Your task to perform on an android device: open app "File Manager" Image 0: 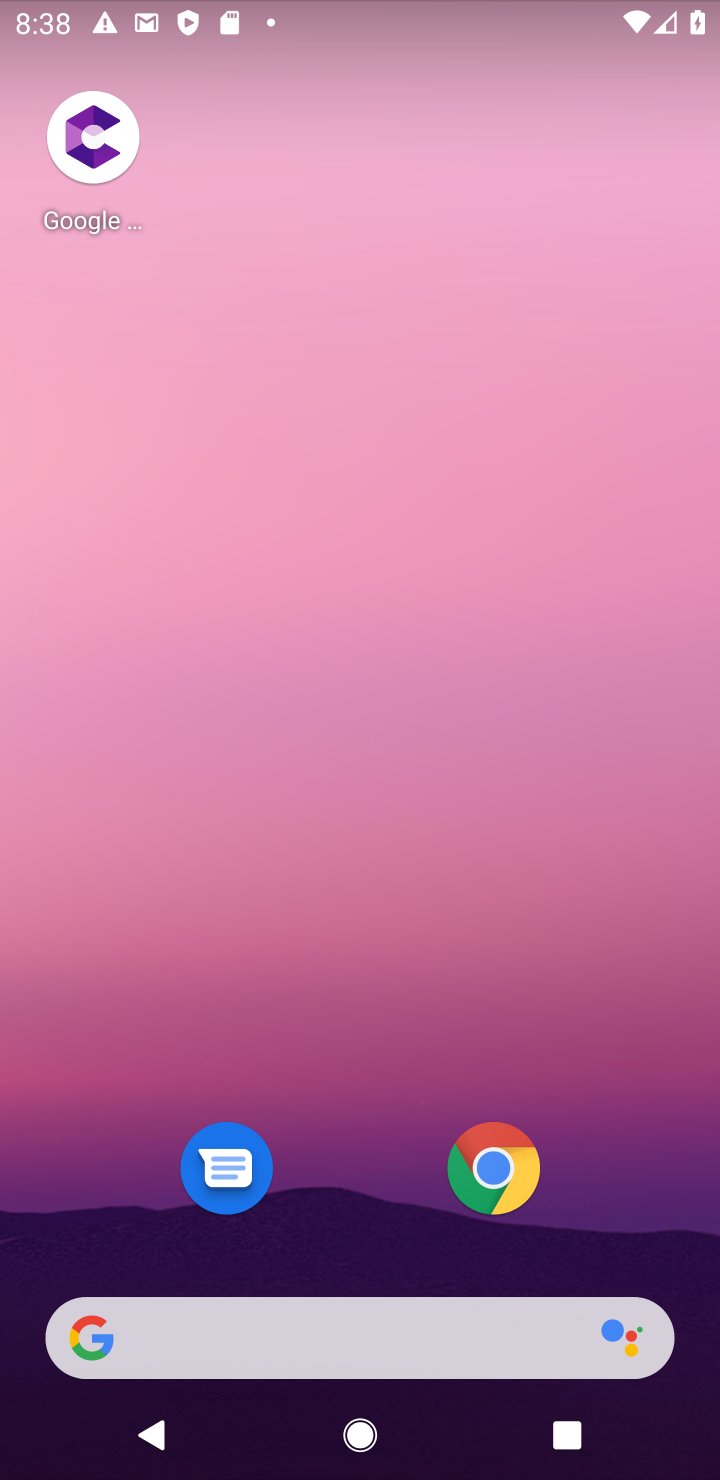
Step 0: drag from (384, 1302) to (355, 219)
Your task to perform on an android device: open app "File Manager" Image 1: 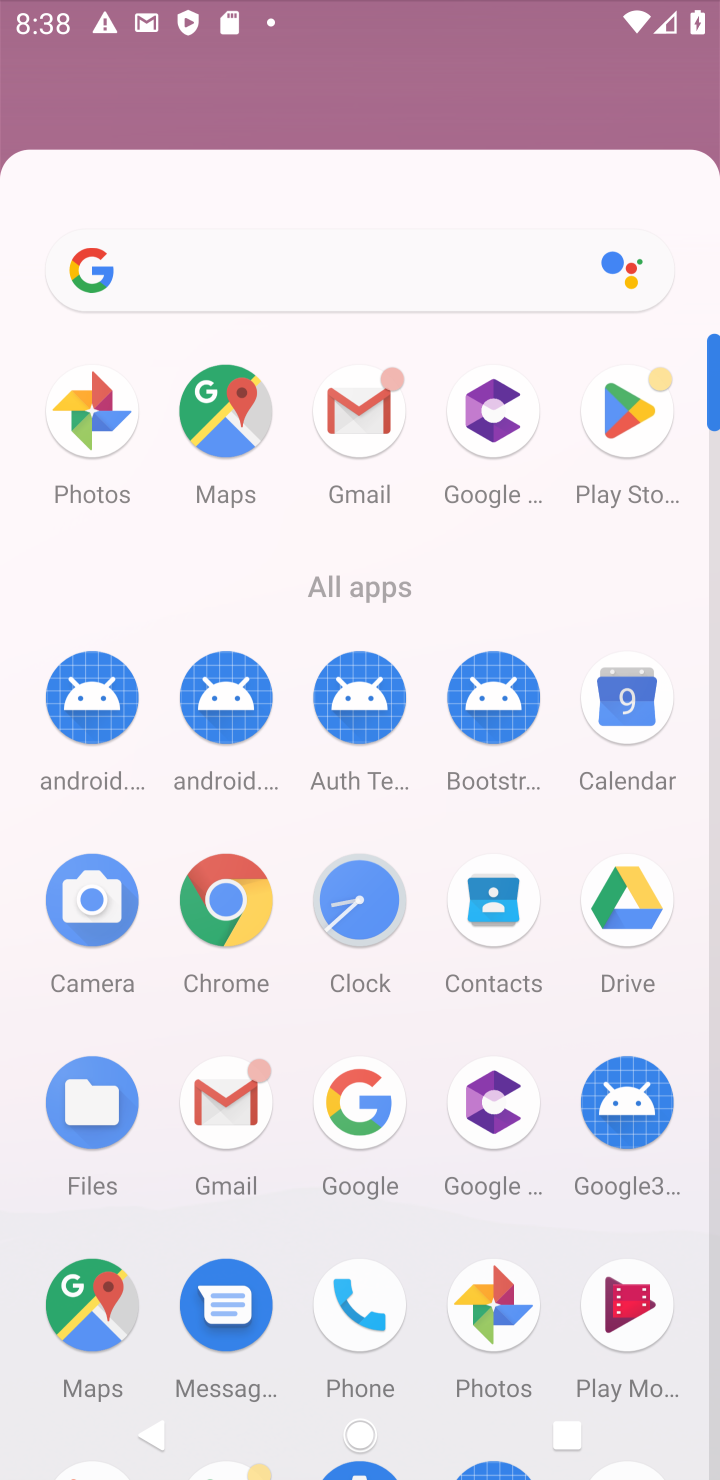
Step 1: click (355, 216)
Your task to perform on an android device: open app "File Manager" Image 2: 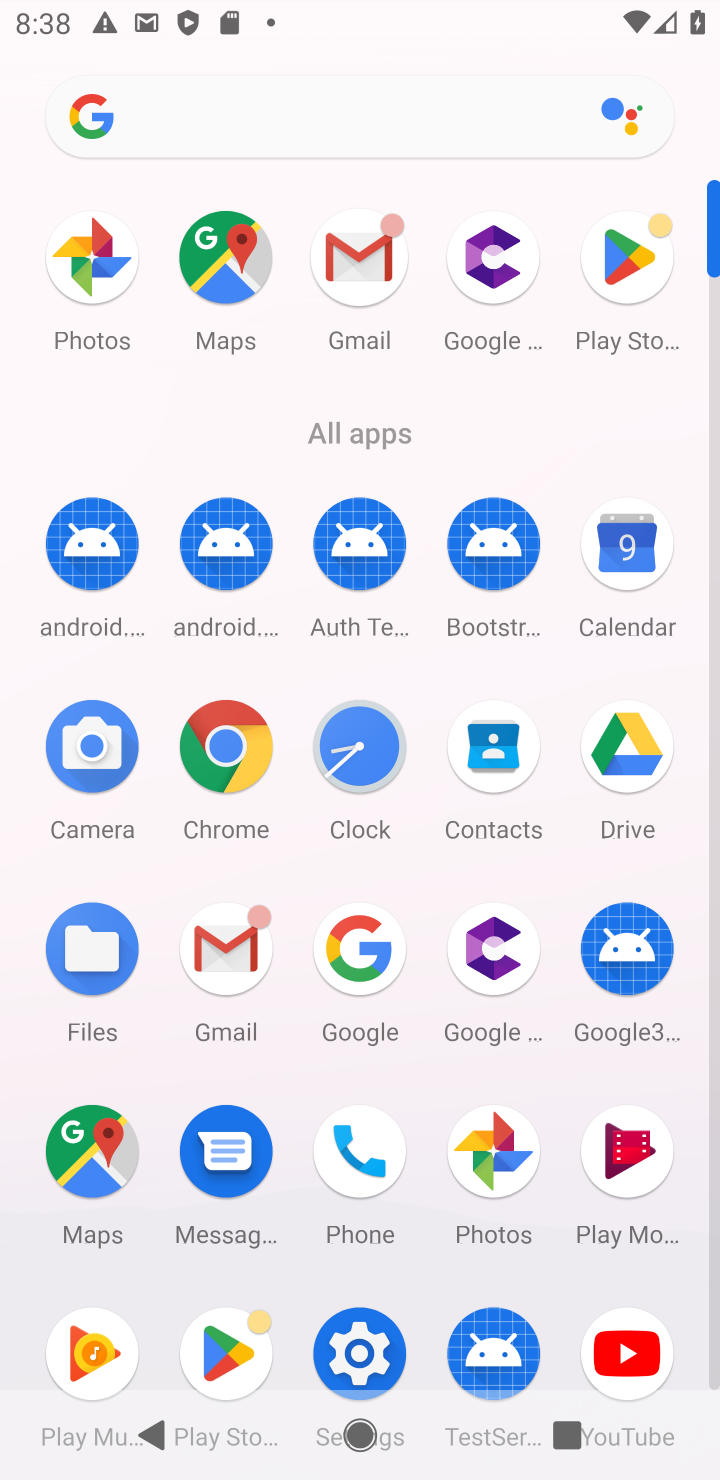
Step 2: click (618, 268)
Your task to perform on an android device: open app "File Manager" Image 3: 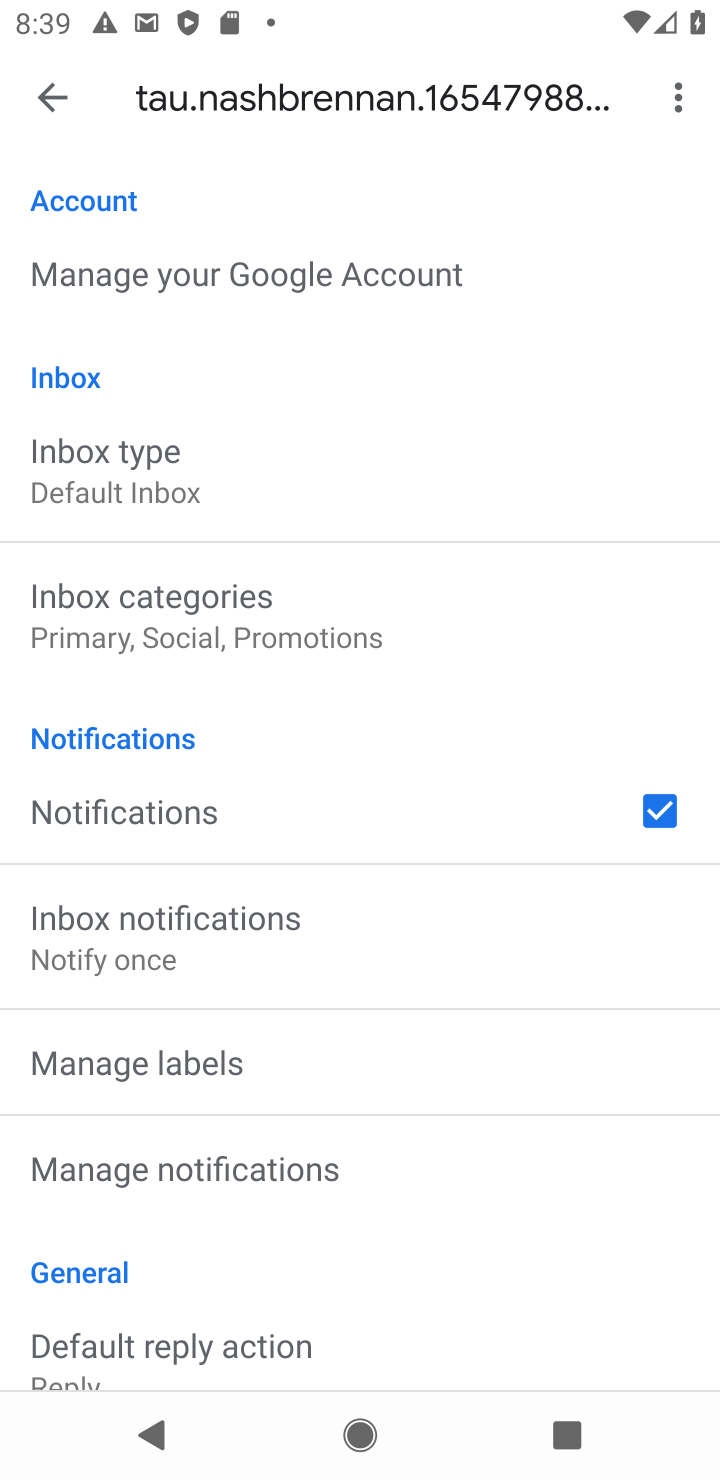
Step 3: press home button
Your task to perform on an android device: open app "File Manager" Image 4: 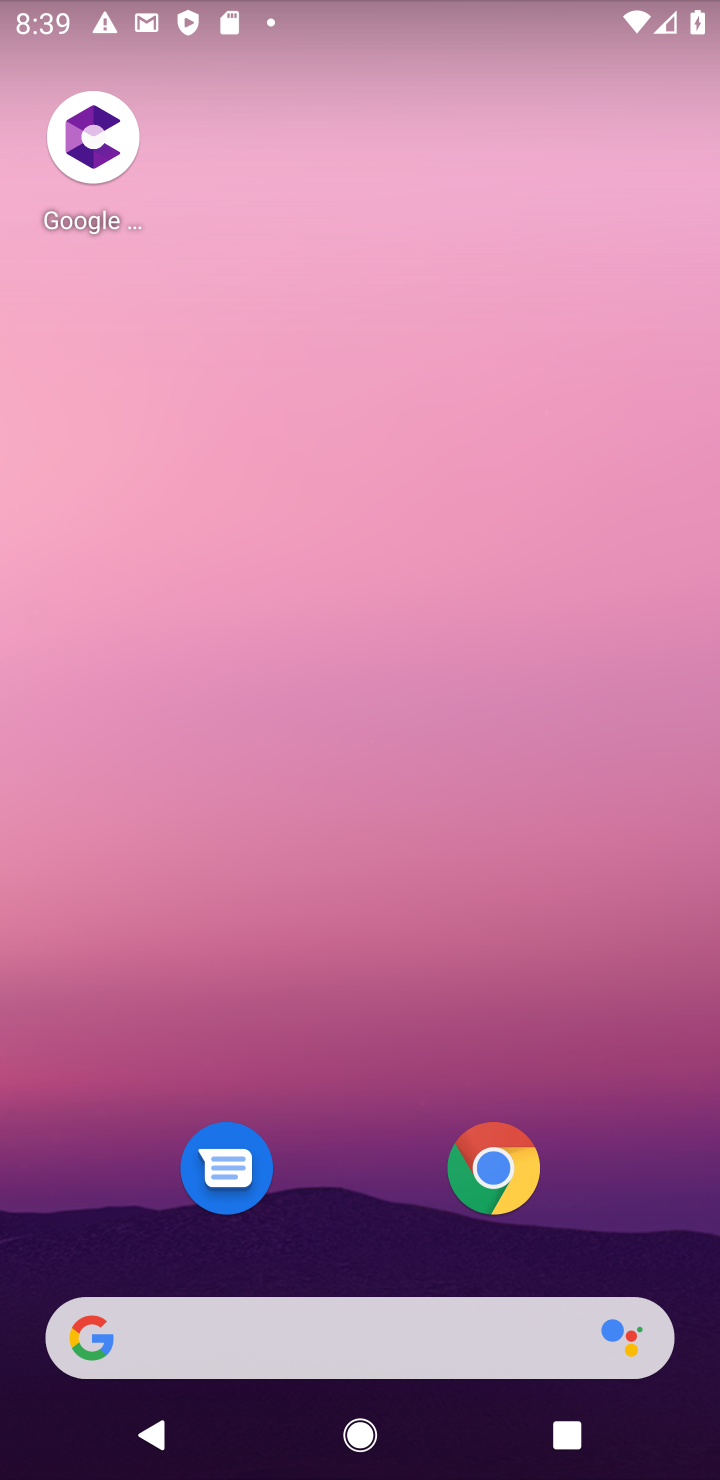
Step 4: drag from (278, 1308) to (181, 448)
Your task to perform on an android device: open app "File Manager" Image 5: 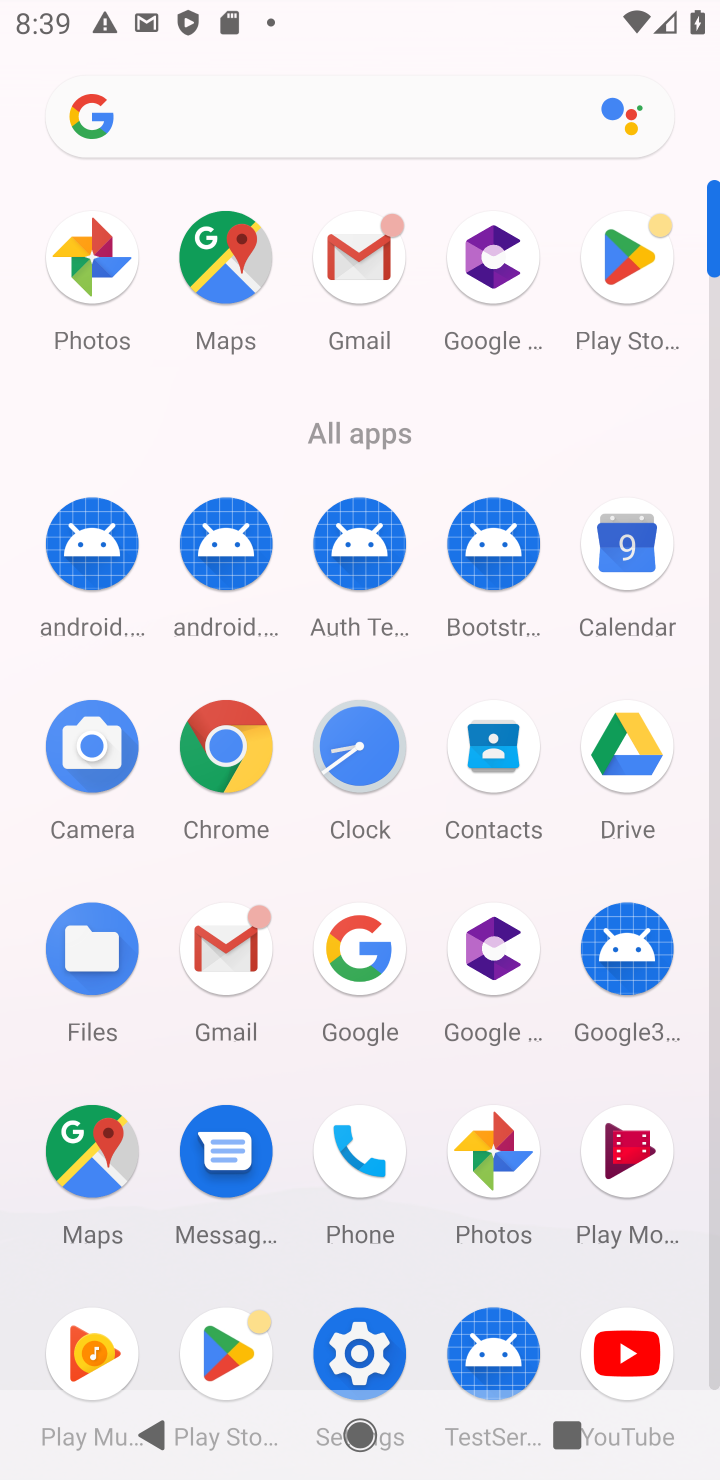
Step 5: click (623, 265)
Your task to perform on an android device: open app "File Manager" Image 6: 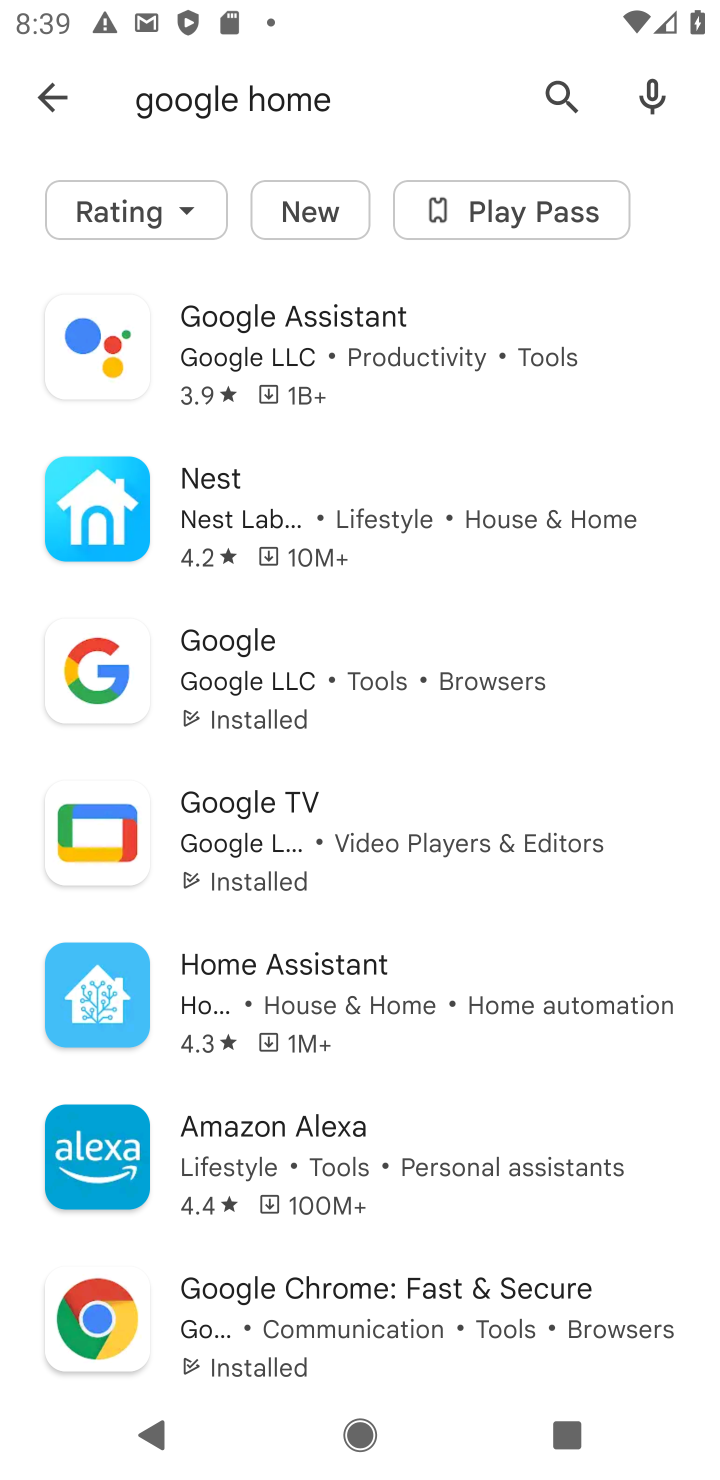
Step 6: click (556, 77)
Your task to perform on an android device: open app "File Manager" Image 7: 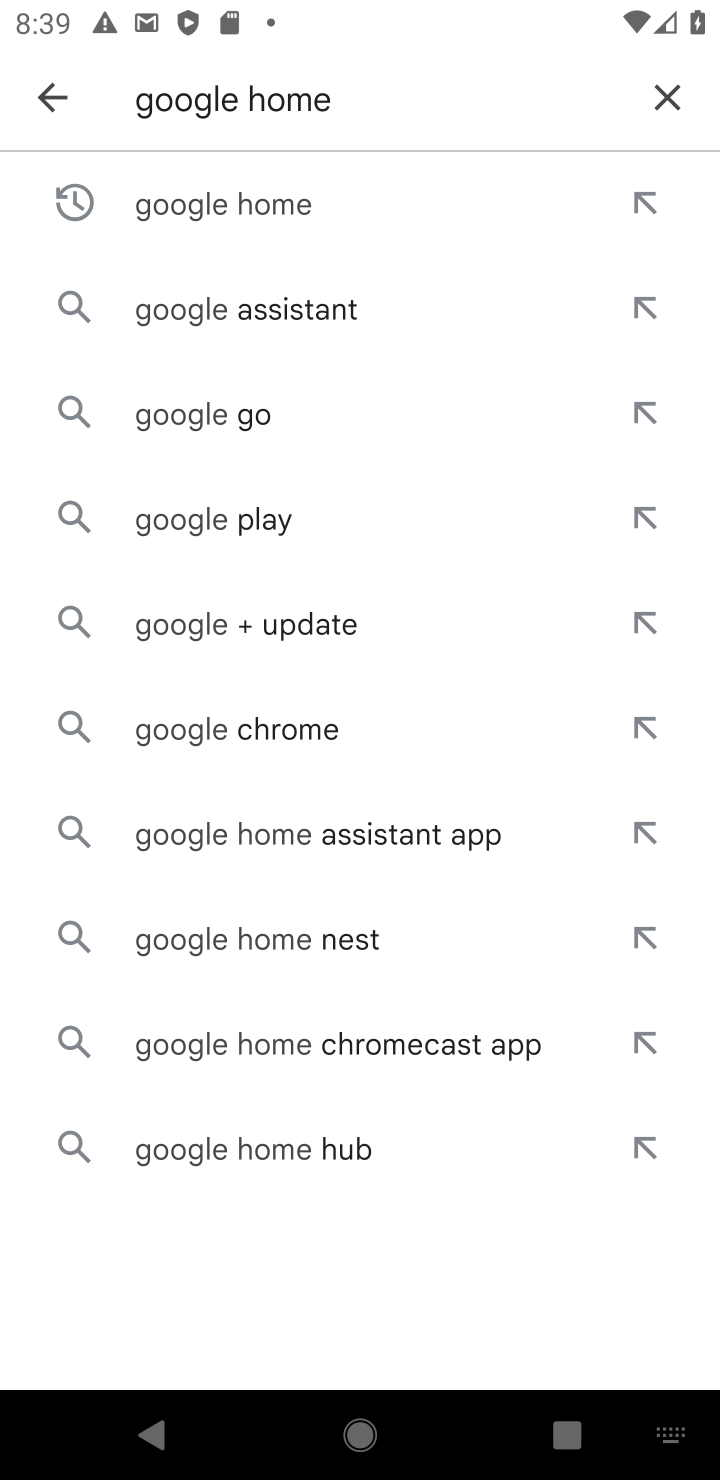
Step 7: click (672, 98)
Your task to perform on an android device: open app "File Manager" Image 8: 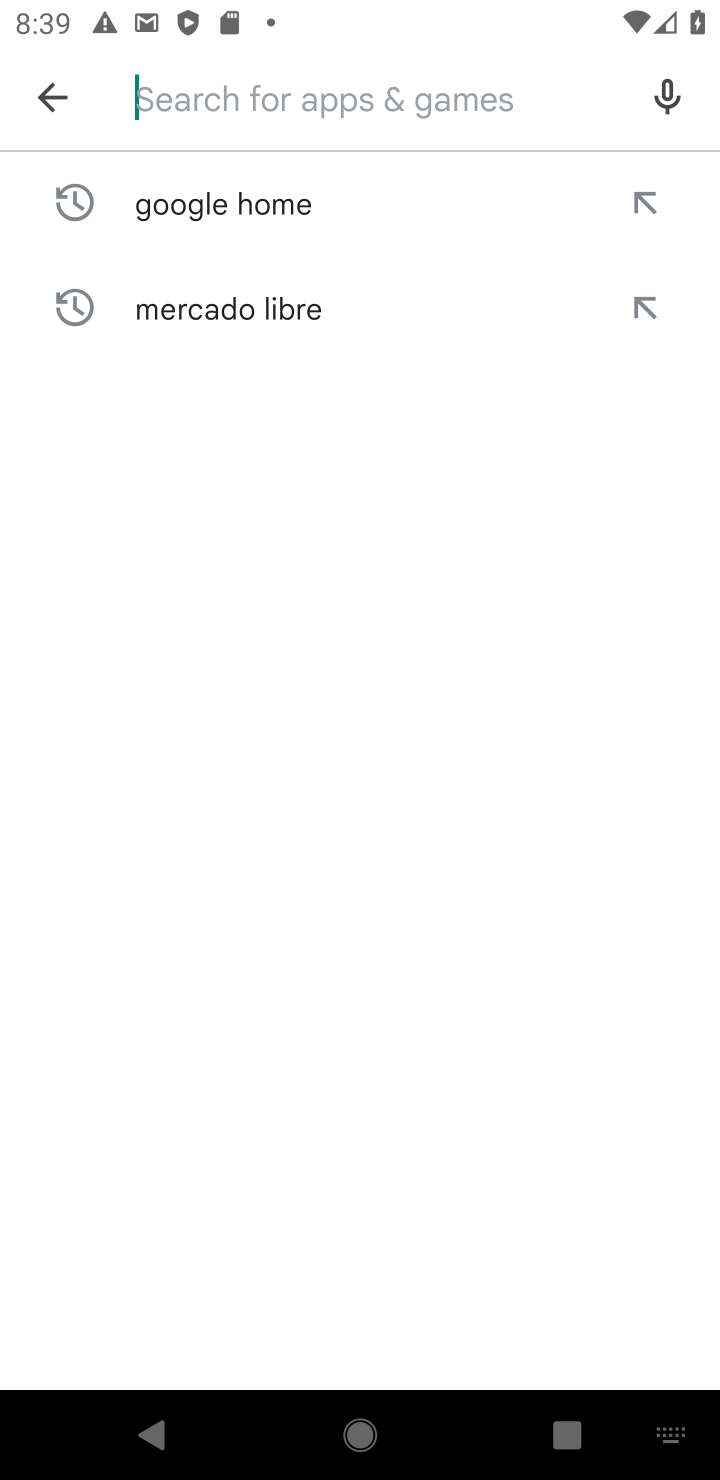
Step 8: type "file manager"
Your task to perform on an android device: open app "File Manager" Image 9: 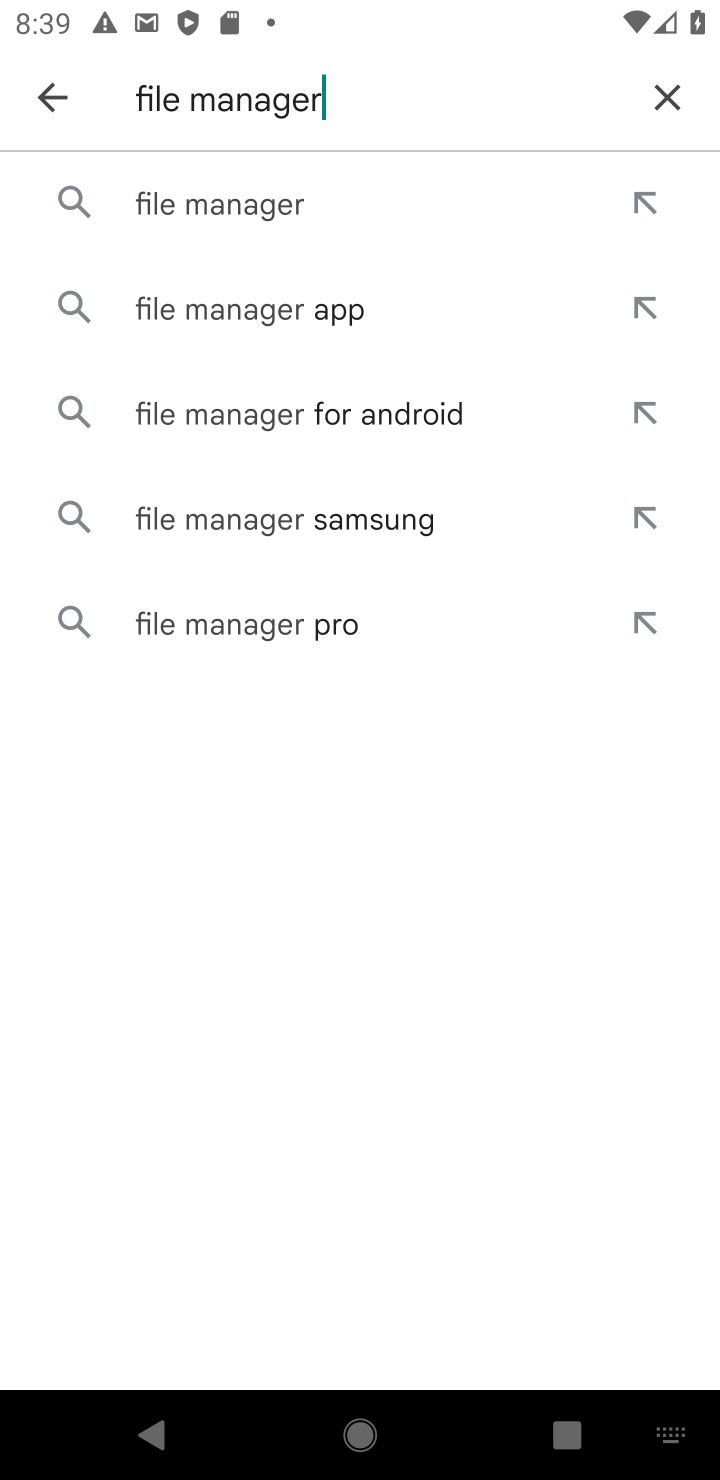
Step 9: click (346, 195)
Your task to perform on an android device: open app "File Manager" Image 10: 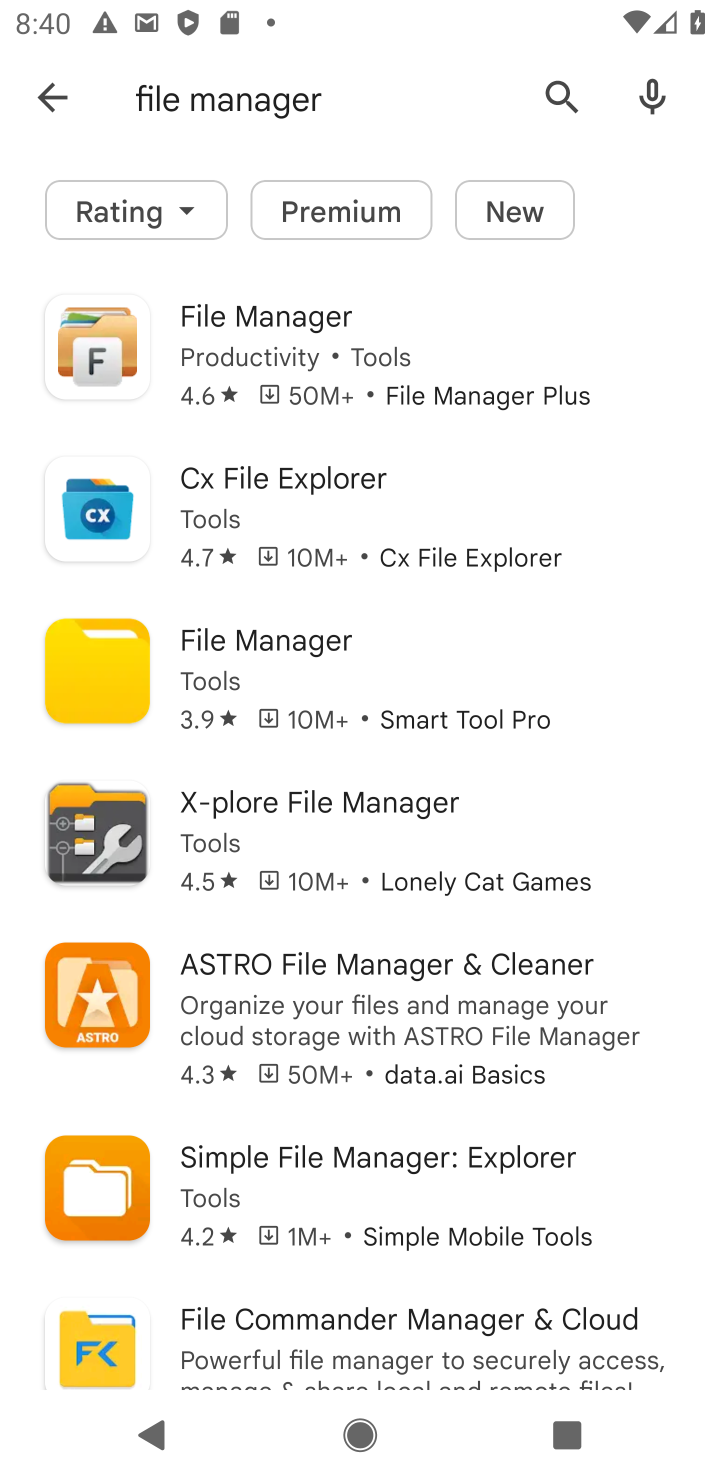
Step 10: click (300, 354)
Your task to perform on an android device: open app "File Manager" Image 11: 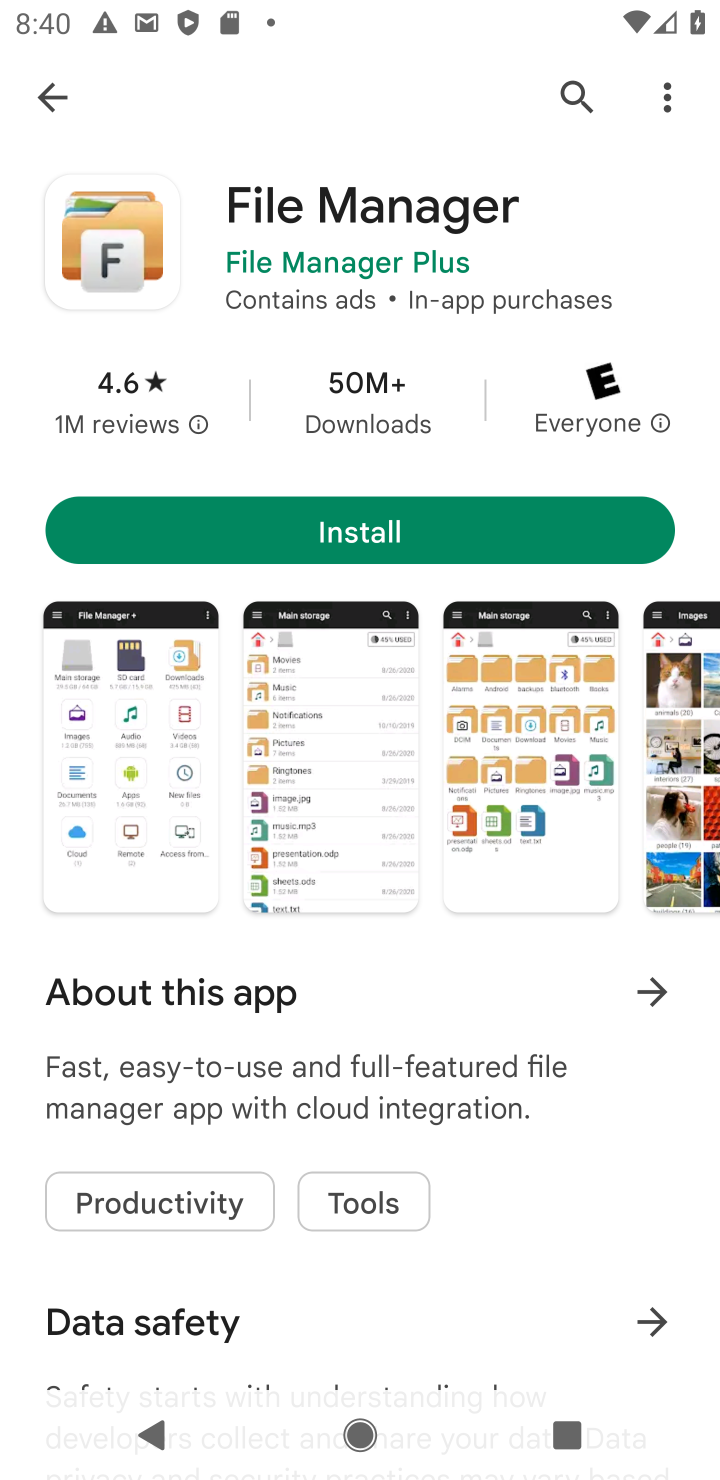
Step 11: click (300, 354)
Your task to perform on an android device: open app "File Manager" Image 12: 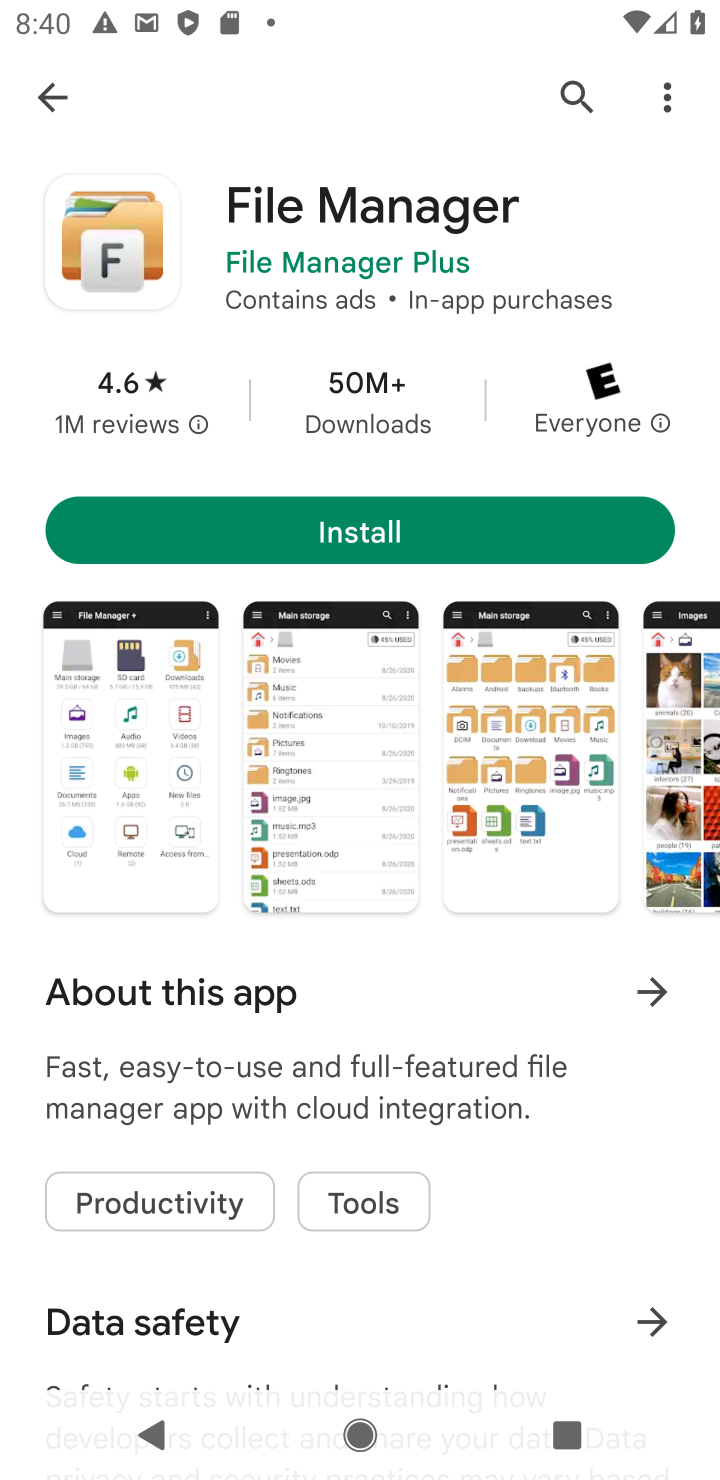
Step 12: task complete